Your task to perform on an android device: Go to Google Image 0: 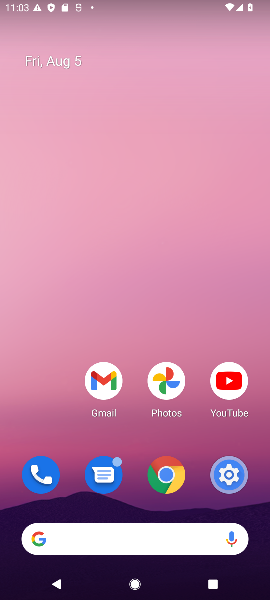
Step 0: click (42, 543)
Your task to perform on an android device: Go to Google Image 1: 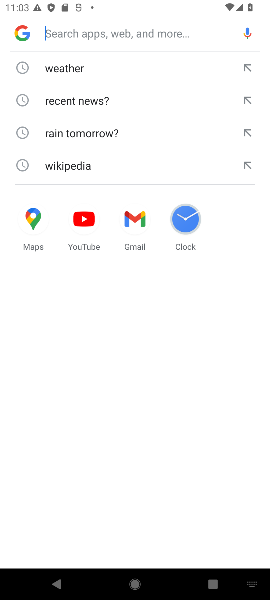
Step 1: click (20, 36)
Your task to perform on an android device: Go to Google Image 2: 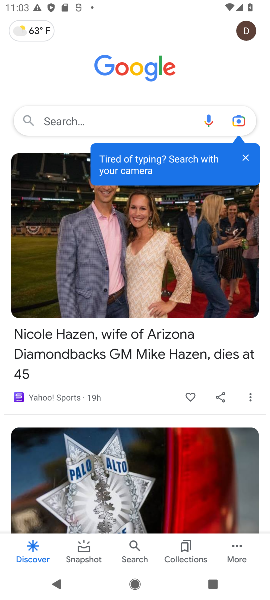
Step 2: task complete